Your task to perform on an android device: read, delete, or share a saved page in the chrome app Image 0: 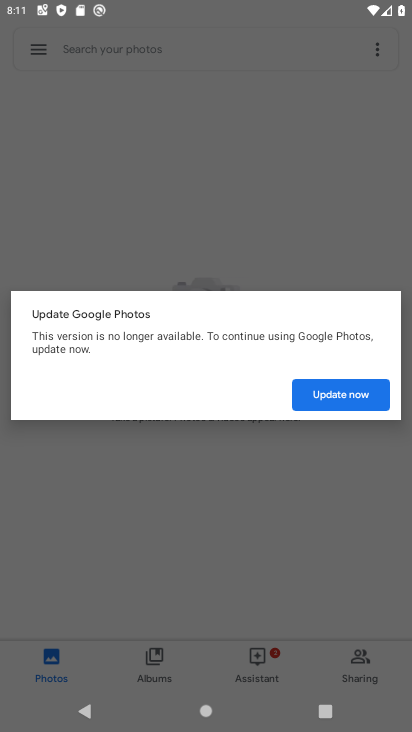
Step 0: press home button
Your task to perform on an android device: read, delete, or share a saved page in the chrome app Image 1: 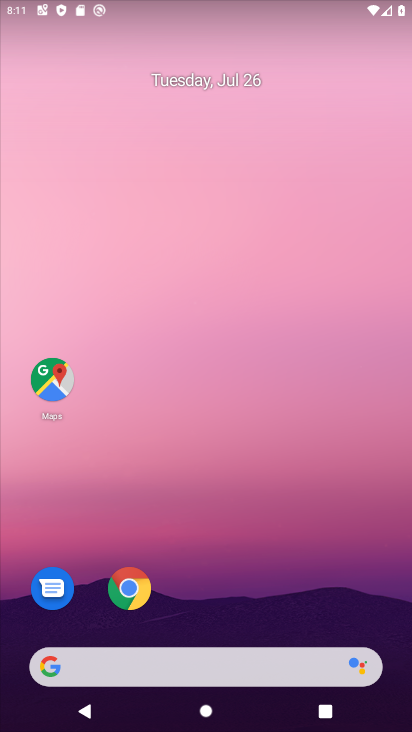
Step 1: drag from (339, 482) to (273, 117)
Your task to perform on an android device: read, delete, or share a saved page in the chrome app Image 2: 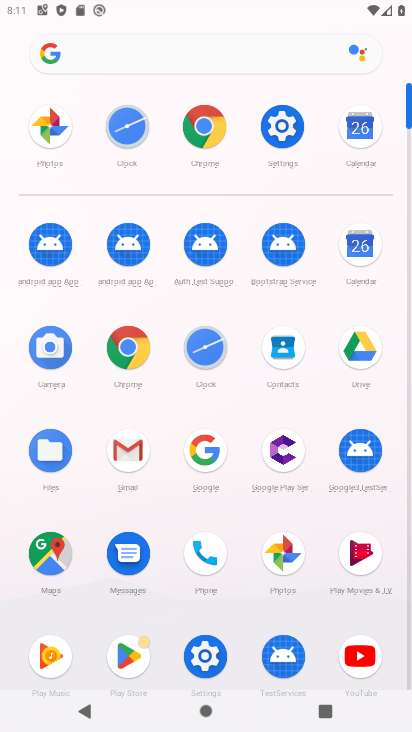
Step 2: click (116, 347)
Your task to perform on an android device: read, delete, or share a saved page in the chrome app Image 3: 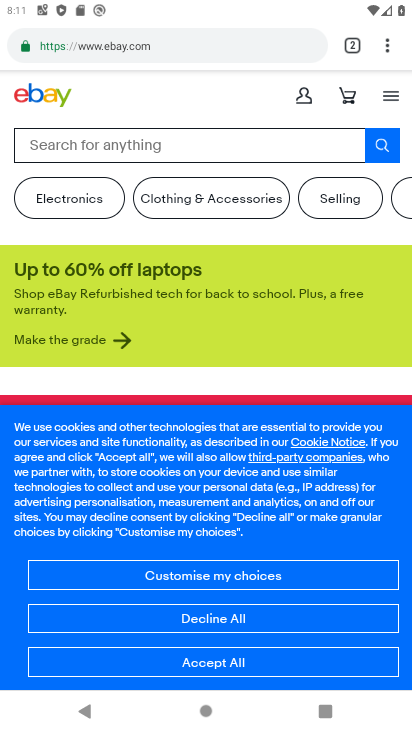
Step 3: click (350, 42)
Your task to perform on an android device: read, delete, or share a saved page in the chrome app Image 4: 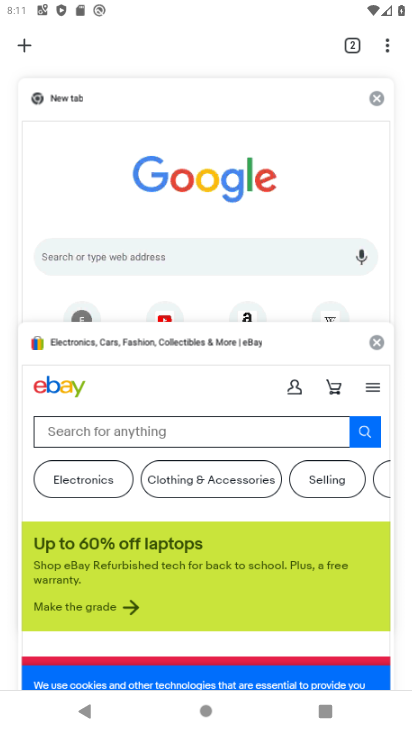
Step 4: task complete